Your task to perform on an android device: Open calendar and show me the third week of next month Image 0: 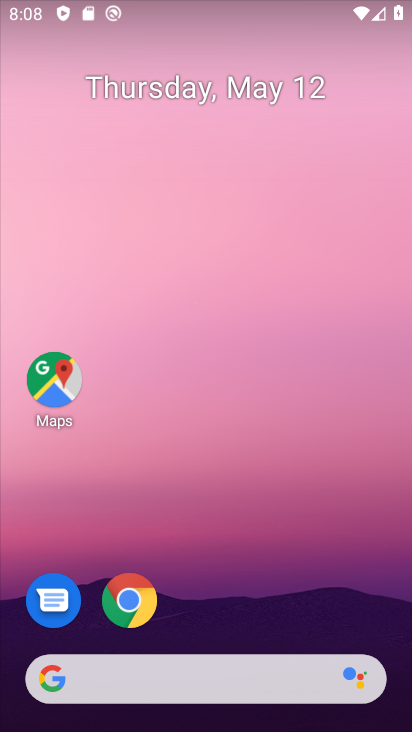
Step 0: drag from (266, 597) to (153, 22)
Your task to perform on an android device: Open calendar and show me the third week of next month Image 1: 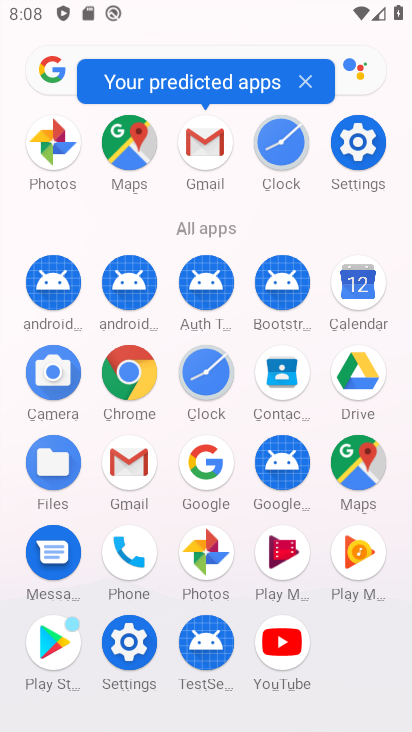
Step 1: click (363, 287)
Your task to perform on an android device: Open calendar and show me the third week of next month Image 2: 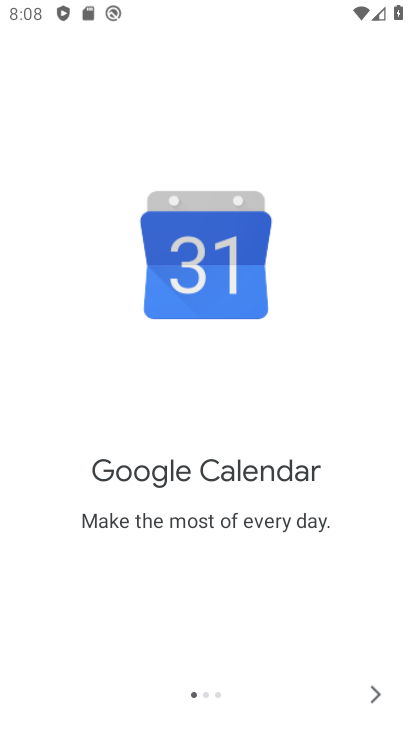
Step 2: click (373, 690)
Your task to perform on an android device: Open calendar and show me the third week of next month Image 3: 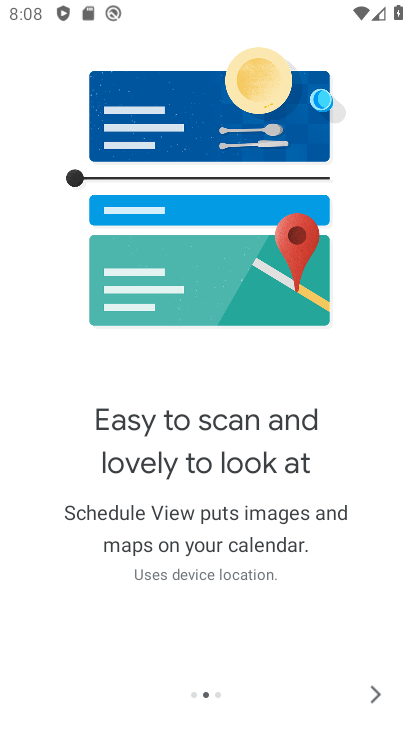
Step 3: click (373, 690)
Your task to perform on an android device: Open calendar and show me the third week of next month Image 4: 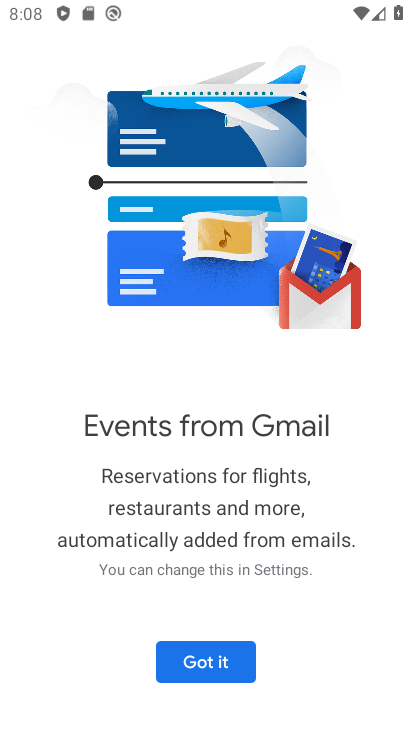
Step 4: click (373, 690)
Your task to perform on an android device: Open calendar and show me the third week of next month Image 5: 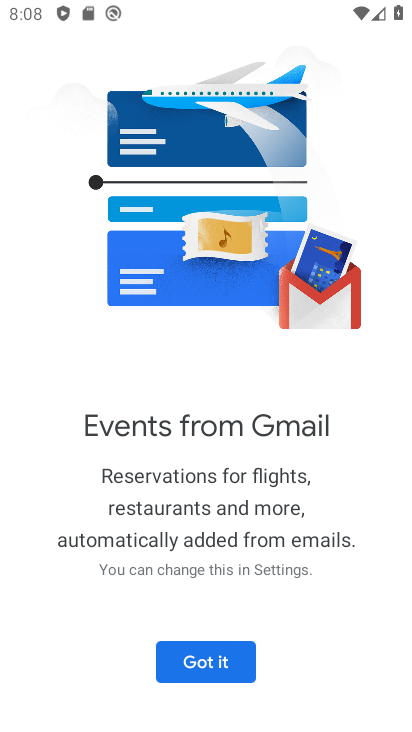
Step 5: click (202, 660)
Your task to perform on an android device: Open calendar and show me the third week of next month Image 6: 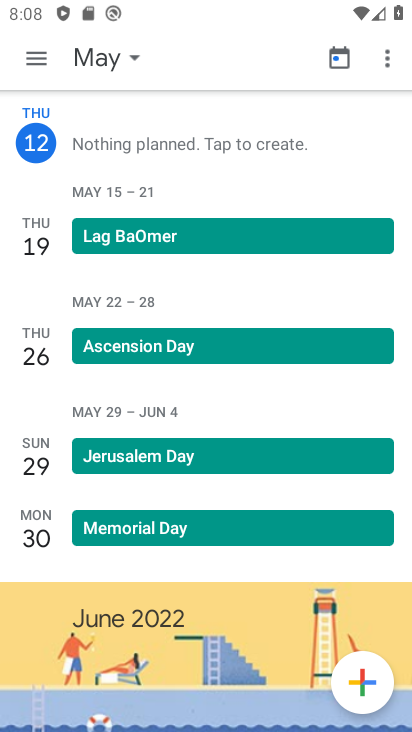
Step 6: click (99, 86)
Your task to perform on an android device: Open calendar and show me the third week of next month Image 7: 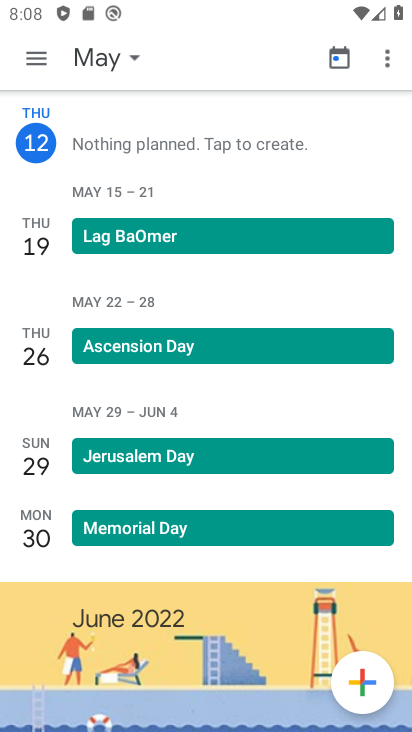
Step 7: click (103, 70)
Your task to perform on an android device: Open calendar and show me the third week of next month Image 8: 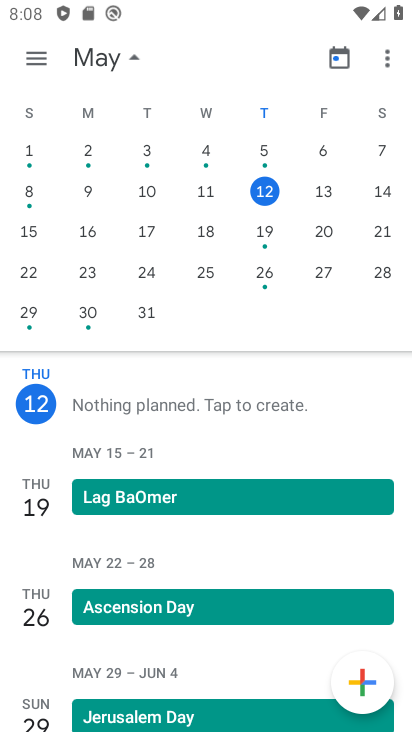
Step 8: drag from (365, 261) to (0, 260)
Your task to perform on an android device: Open calendar and show me the third week of next month Image 9: 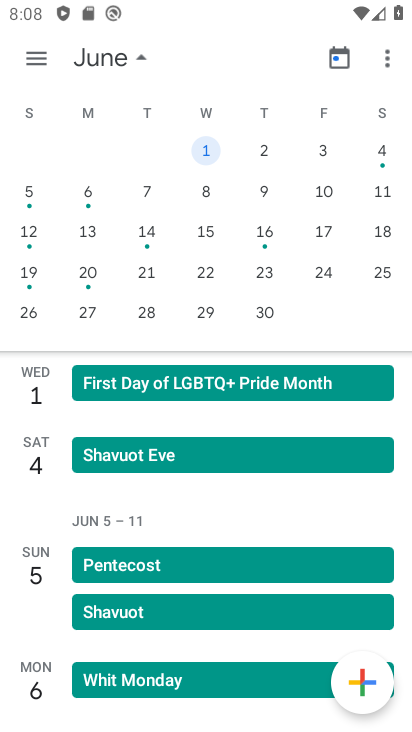
Step 9: click (150, 267)
Your task to perform on an android device: Open calendar and show me the third week of next month Image 10: 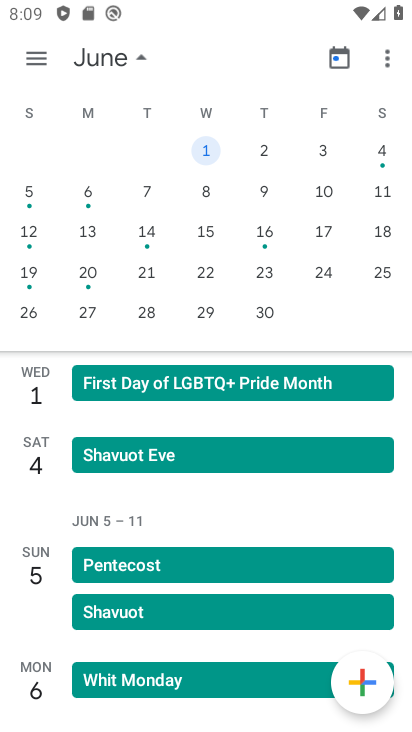
Step 10: click (146, 272)
Your task to perform on an android device: Open calendar and show me the third week of next month Image 11: 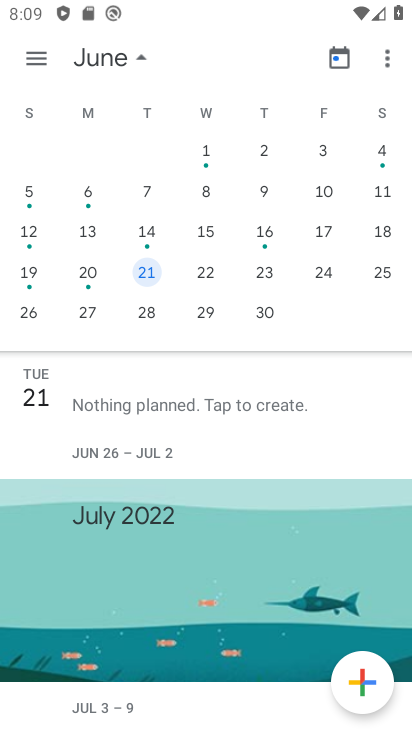
Step 11: task complete